Your task to perform on an android device: Go to battery settings Image 0: 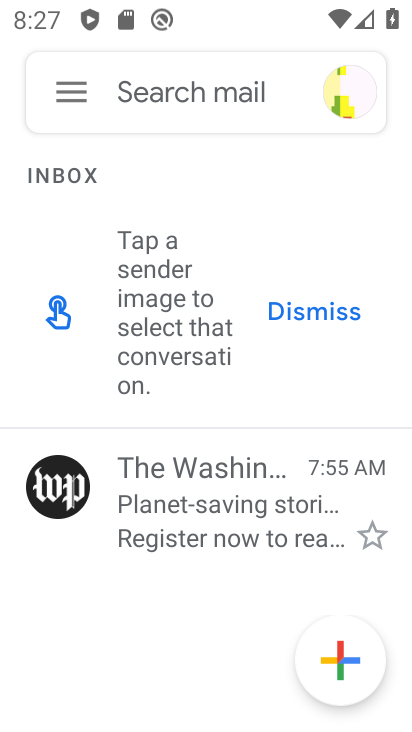
Step 0: press home button
Your task to perform on an android device: Go to battery settings Image 1: 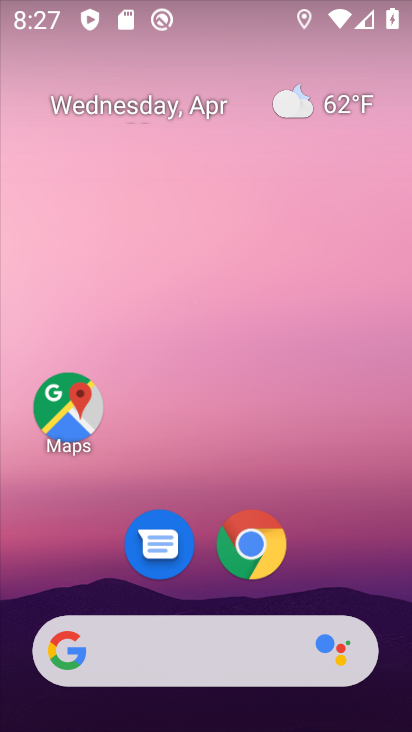
Step 1: drag from (315, 512) to (177, 86)
Your task to perform on an android device: Go to battery settings Image 2: 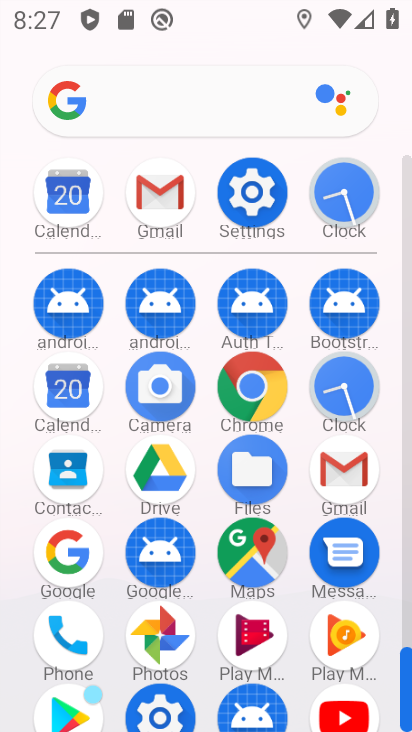
Step 2: click (267, 204)
Your task to perform on an android device: Go to battery settings Image 3: 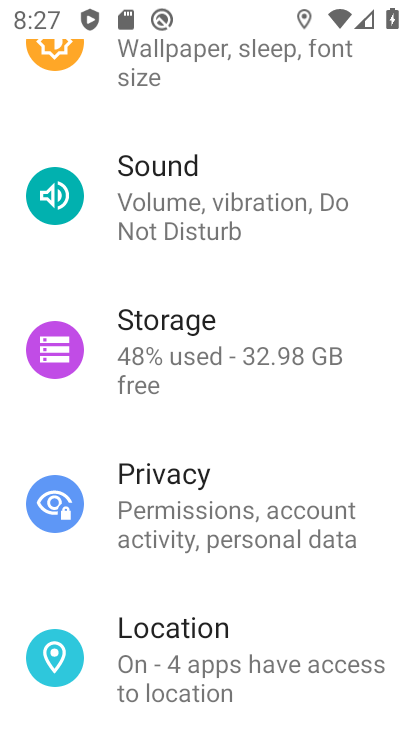
Step 3: drag from (235, 611) to (222, 188)
Your task to perform on an android device: Go to battery settings Image 4: 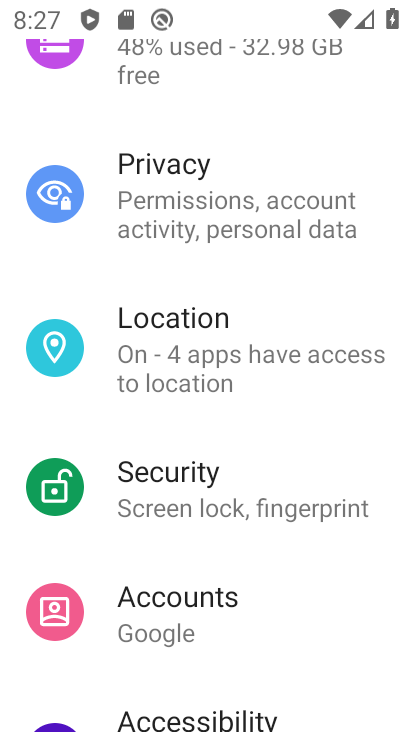
Step 4: drag from (260, 177) to (245, 716)
Your task to perform on an android device: Go to battery settings Image 5: 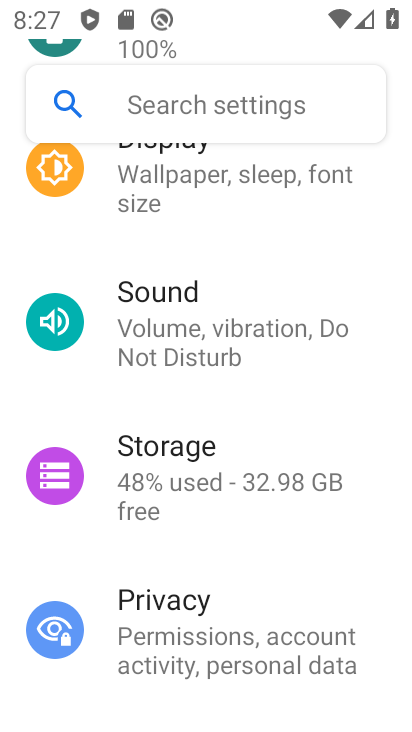
Step 5: drag from (260, 353) to (224, 609)
Your task to perform on an android device: Go to battery settings Image 6: 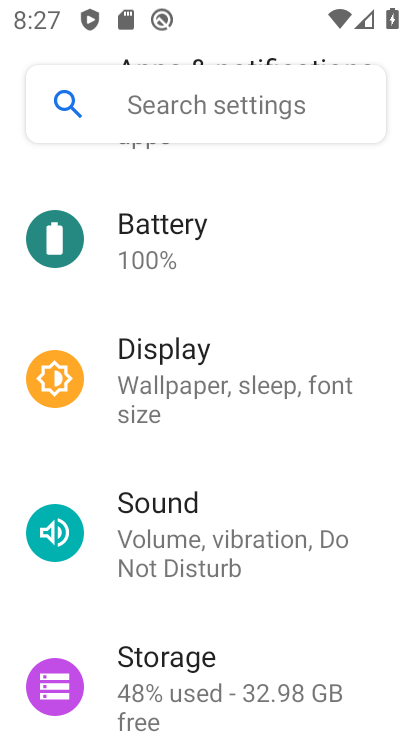
Step 6: click (163, 240)
Your task to perform on an android device: Go to battery settings Image 7: 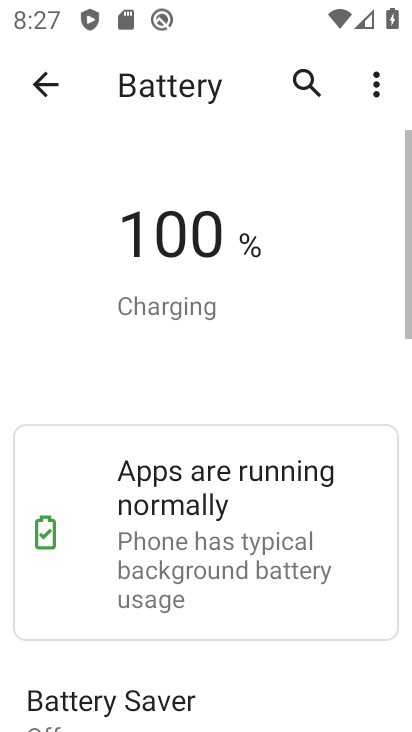
Step 7: task complete